Your task to perform on an android device: turn smart compose on in the gmail app Image 0: 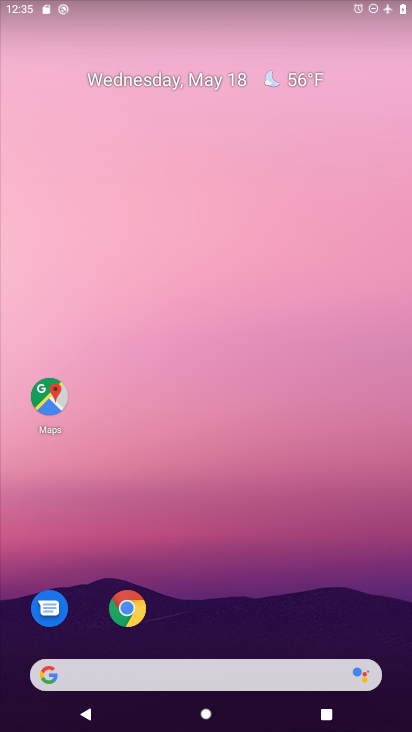
Step 0: drag from (240, 680) to (245, 268)
Your task to perform on an android device: turn smart compose on in the gmail app Image 1: 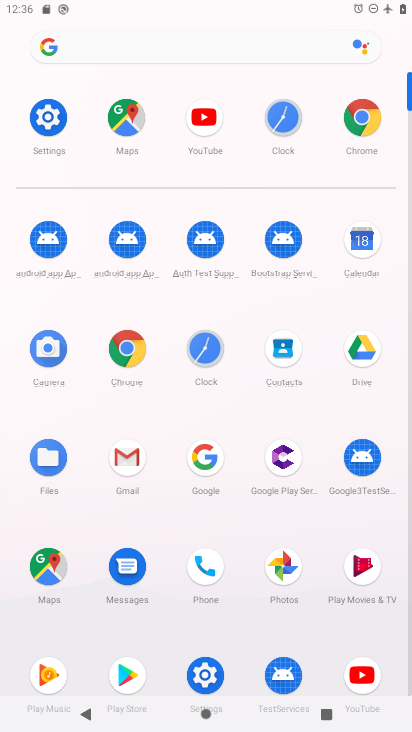
Step 1: click (124, 454)
Your task to perform on an android device: turn smart compose on in the gmail app Image 2: 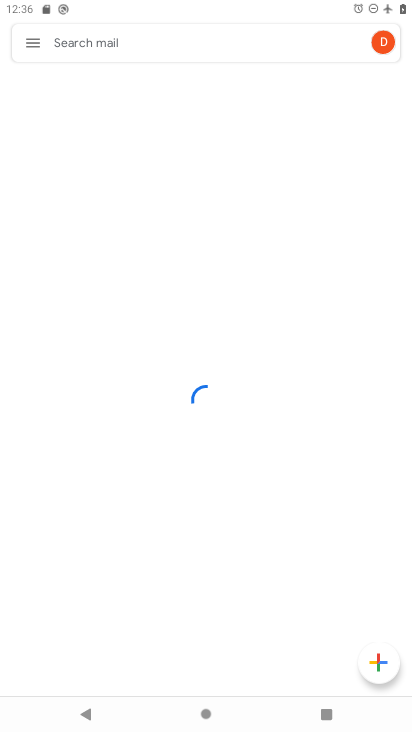
Step 2: click (30, 47)
Your task to perform on an android device: turn smart compose on in the gmail app Image 3: 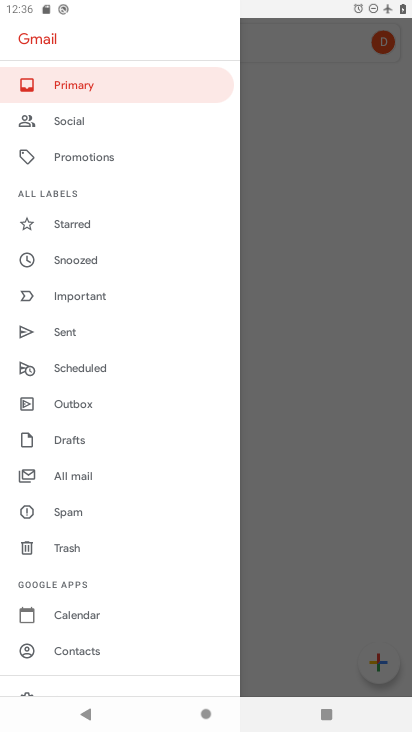
Step 3: drag from (97, 537) to (111, 398)
Your task to perform on an android device: turn smart compose on in the gmail app Image 4: 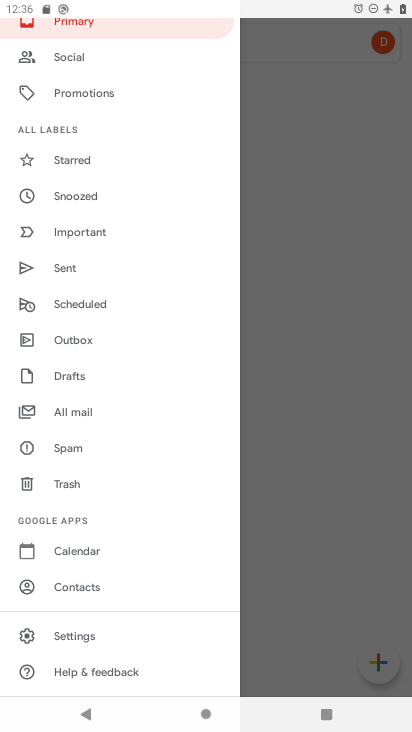
Step 4: click (87, 629)
Your task to perform on an android device: turn smart compose on in the gmail app Image 5: 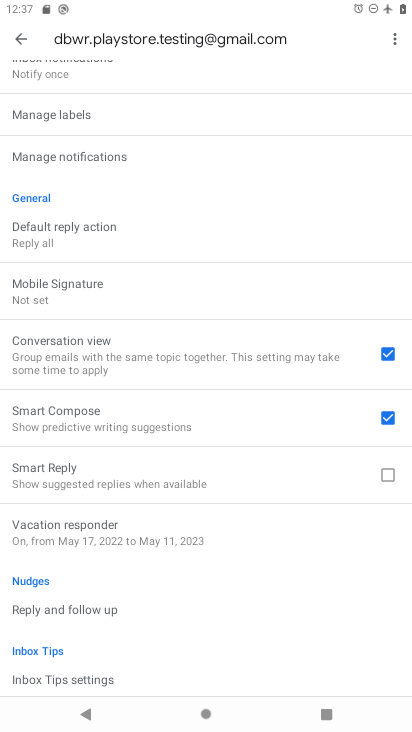
Step 5: click (141, 601)
Your task to perform on an android device: turn smart compose on in the gmail app Image 6: 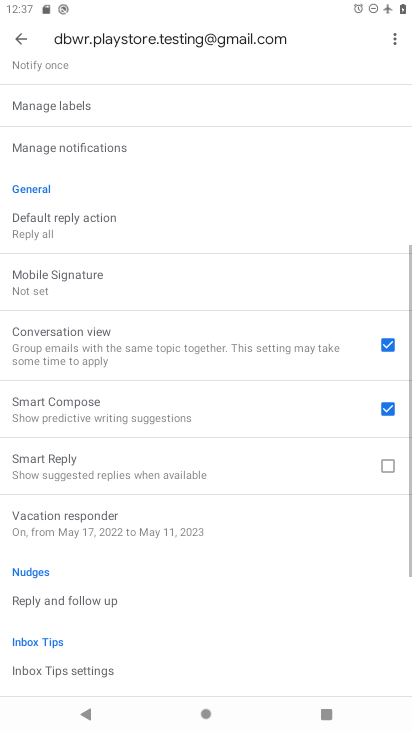
Step 6: click (260, 393)
Your task to perform on an android device: turn smart compose on in the gmail app Image 7: 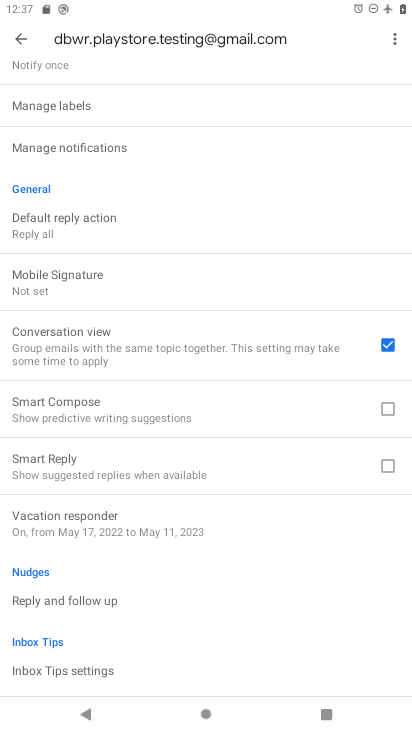
Step 7: click (257, 391)
Your task to perform on an android device: turn smart compose on in the gmail app Image 8: 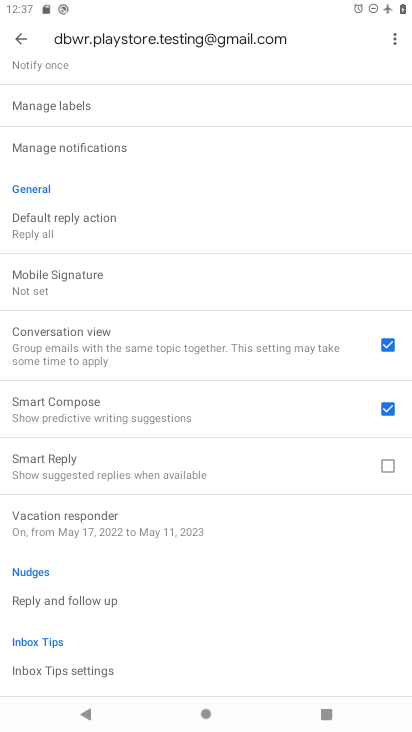
Step 8: task complete